Your task to perform on an android device: clear all cookies in the chrome app Image 0: 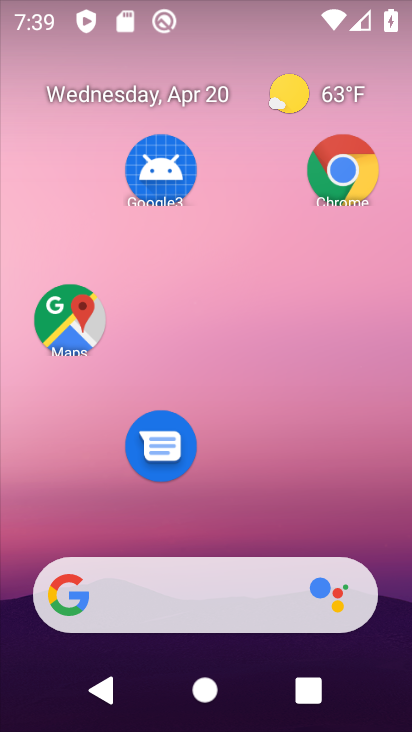
Step 0: click (353, 168)
Your task to perform on an android device: clear all cookies in the chrome app Image 1: 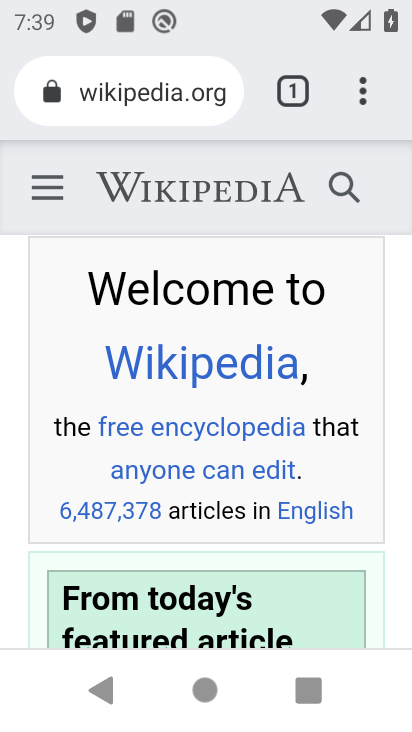
Step 1: click (359, 95)
Your task to perform on an android device: clear all cookies in the chrome app Image 2: 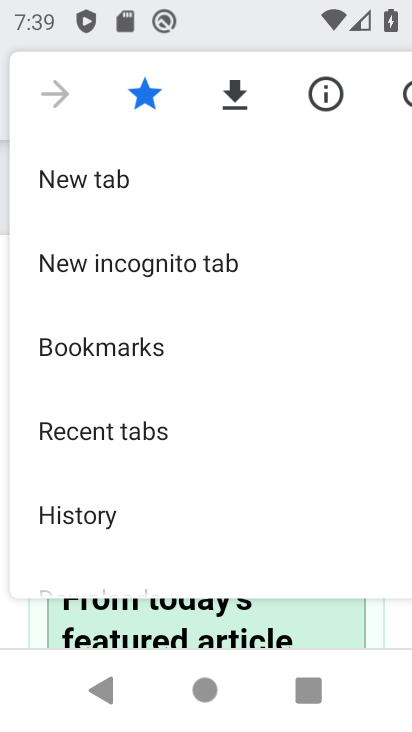
Step 2: drag from (161, 535) to (174, 102)
Your task to perform on an android device: clear all cookies in the chrome app Image 3: 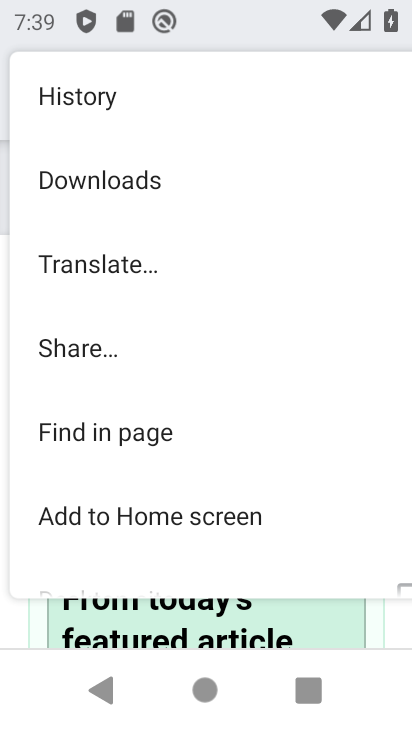
Step 3: drag from (213, 474) to (233, 2)
Your task to perform on an android device: clear all cookies in the chrome app Image 4: 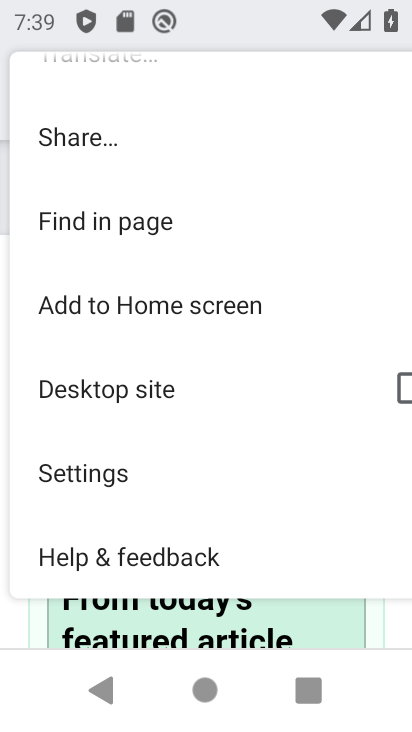
Step 4: click (82, 477)
Your task to perform on an android device: clear all cookies in the chrome app Image 5: 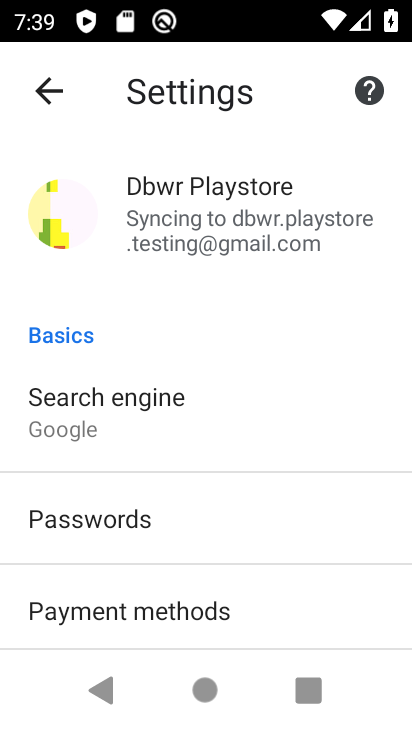
Step 5: drag from (242, 522) to (242, 205)
Your task to perform on an android device: clear all cookies in the chrome app Image 6: 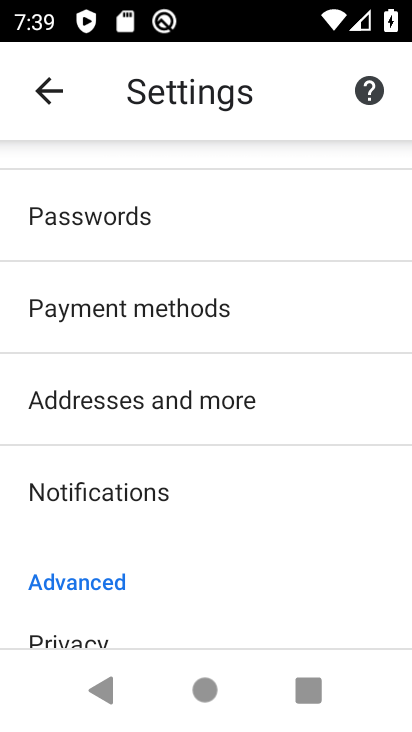
Step 6: drag from (194, 529) to (197, 292)
Your task to perform on an android device: clear all cookies in the chrome app Image 7: 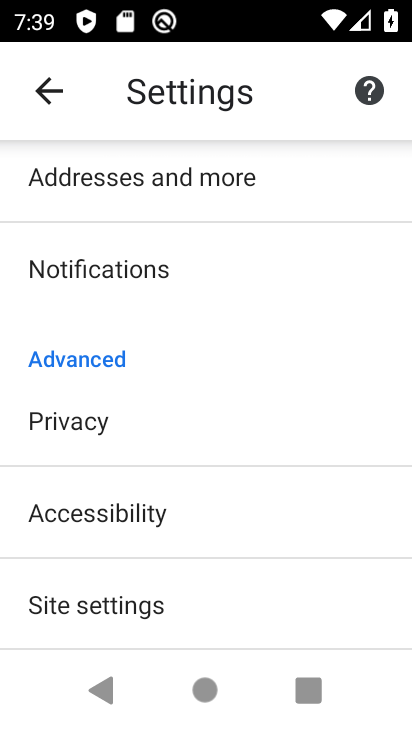
Step 7: click (64, 424)
Your task to perform on an android device: clear all cookies in the chrome app Image 8: 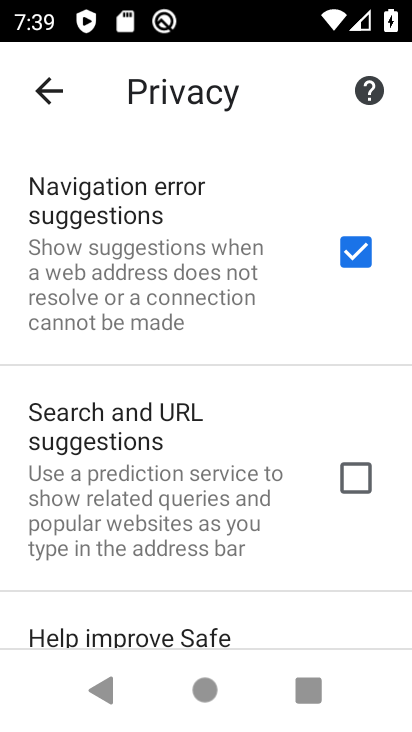
Step 8: drag from (276, 587) to (263, 167)
Your task to perform on an android device: clear all cookies in the chrome app Image 9: 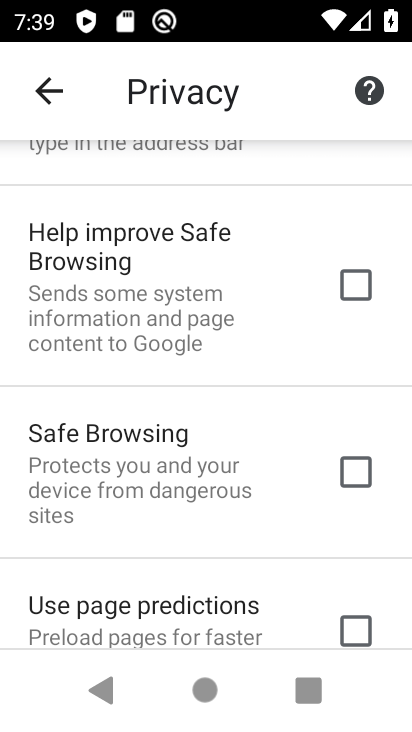
Step 9: drag from (251, 557) to (246, 71)
Your task to perform on an android device: clear all cookies in the chrome app Image 10: 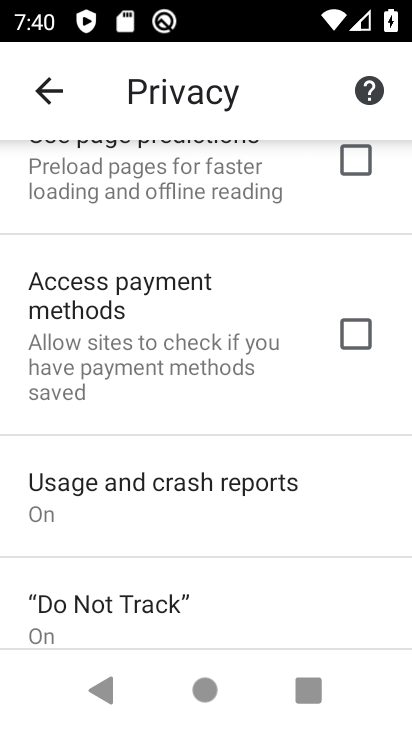
Step 10: drag from (218, 556) to (200, 172)
Your task to perform on an android device: clear all cookies in the chrome app Image 11: 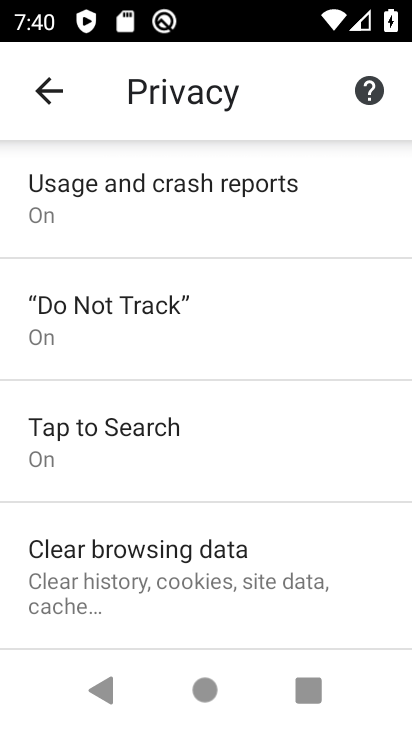
Step 11: click (128, 564)
Your task to perform on an android device: clear all cookies in the chrome app Image 12: 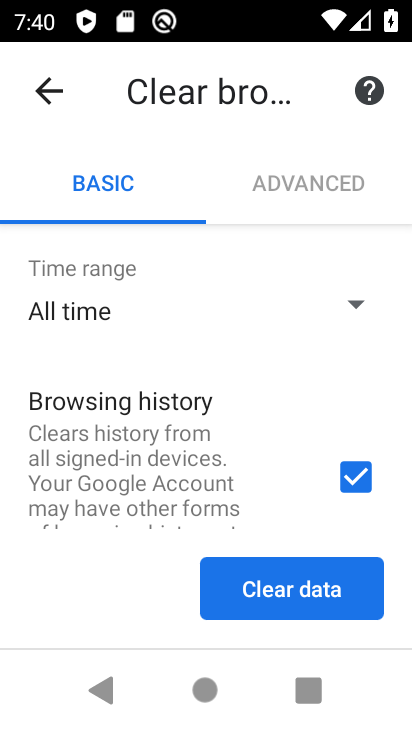
Step 12: click (363, 476)
Your task to perform on an android device: clear all cookies in the chrome app Image 13: 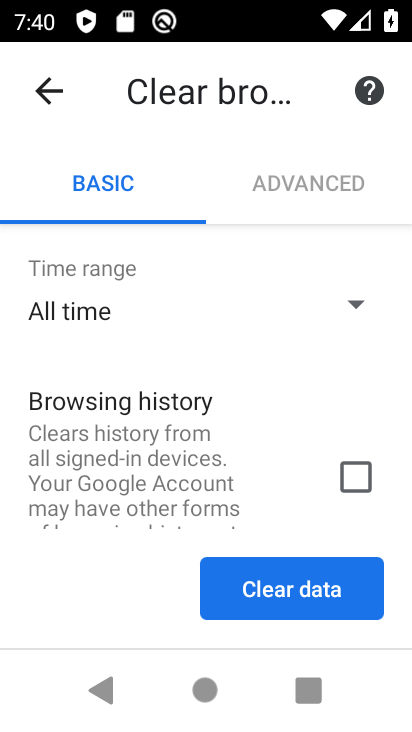
Step 13: drag from (104, 541) to (96, 304)
Your task to perform on an android device: clear all cookies in the chrome app Image 14: 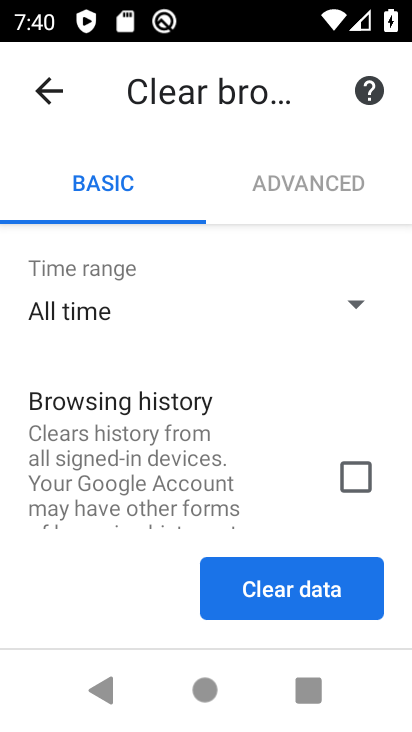
Step 14: drag from (265, 459) to (247, 284)
Your task to perform on an android device: clear all cookies in the chrome app Image 15: 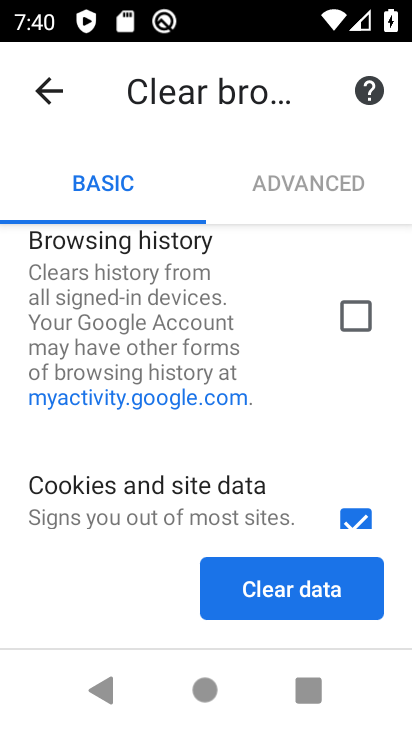
Step 15: drag from (283, 439) to (235, 107)
Your task to perform on an android device: clear all cookies in the chrome app Image 16: 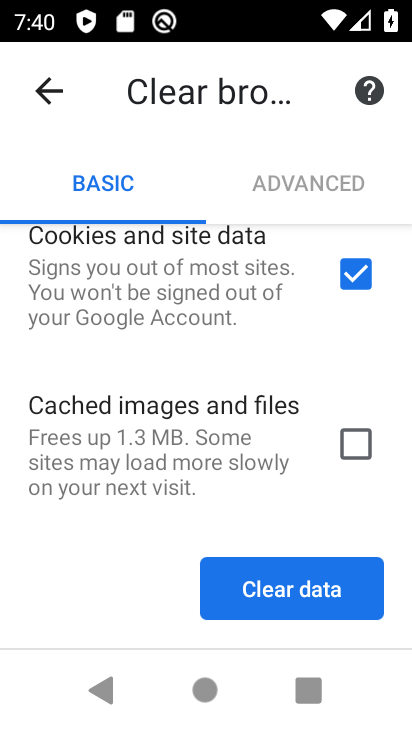
Step 16: drag from (240, 481) to (230, 115)
Your task to perform on an android device: clear all cookies in the chrome app Image 17: 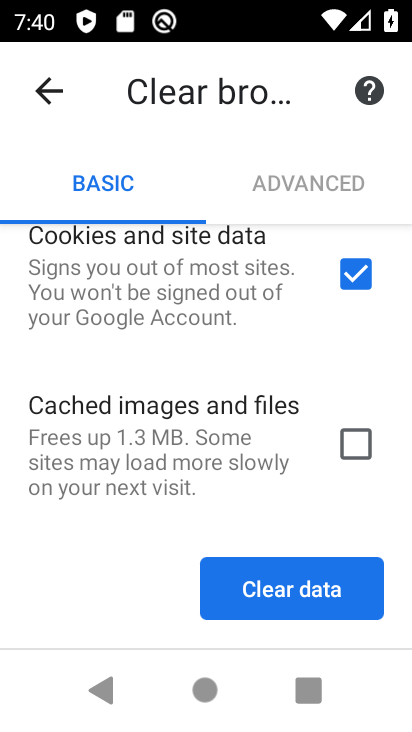
Step 17: click (290, 592)
Your task to perform on an android device: clear all cookies in the chrome app Image 18: 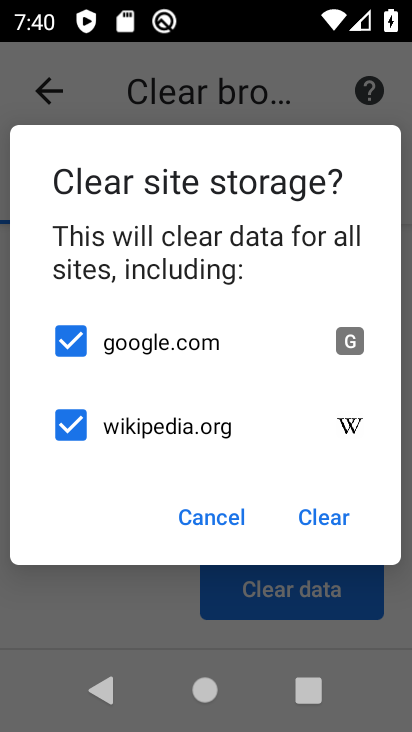
Step 18: click (327, 524)
Your task to perform on an android device: clear all cookies in the chrome app Image 19: 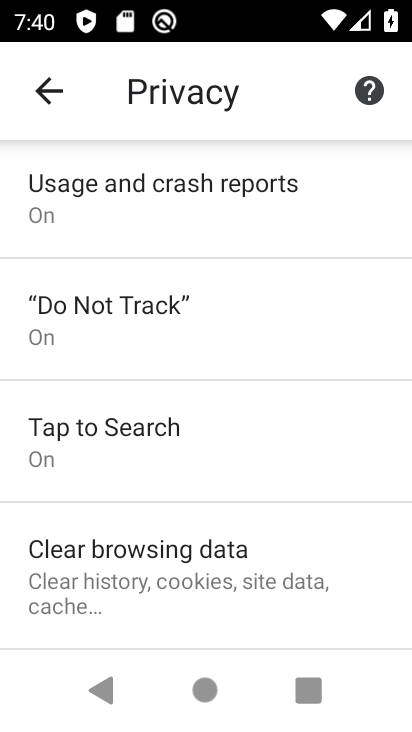
Step 19: task complete